Your task to perform on an android device: add a label to a message in the gmail app Image 0: 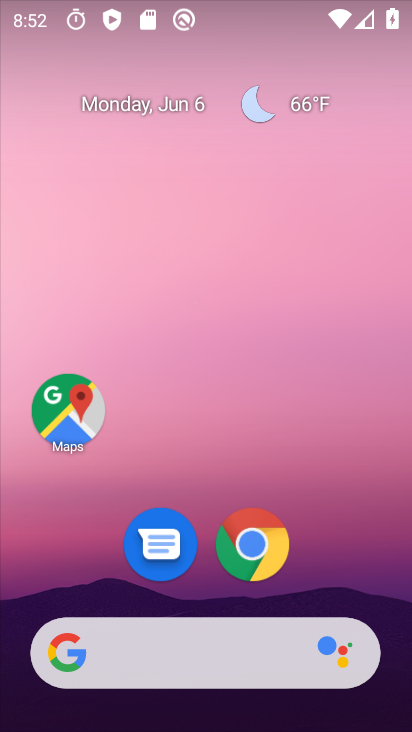
Step 0: drag from (390, 558) to (318, 73)
Your task to perform on an android device: add a label to a message in the gmail app Image 1: 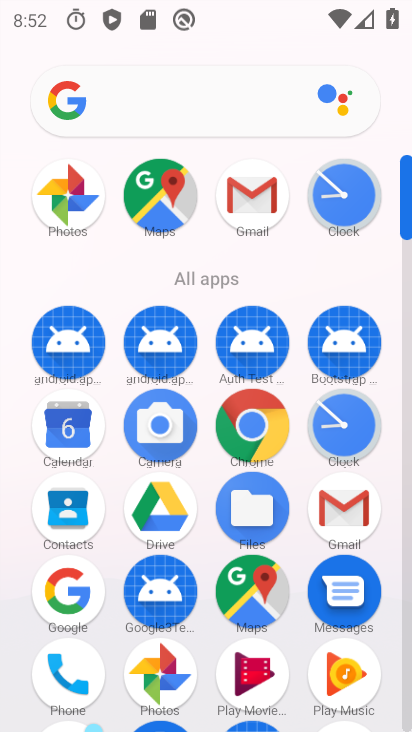
Step 1: click (249, 190)
Your task to perform on an android device: add a label to a message in the gmail app Image 2: 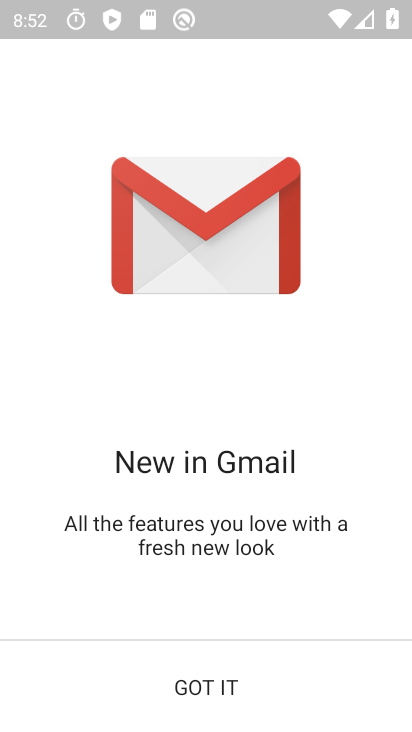
Step 2: click (215, 692)
Your task to perform on an android device: add a label to a message in the gmail app Image 3: 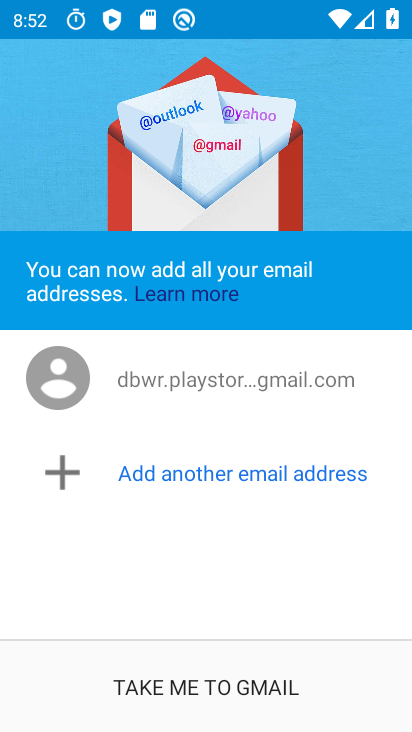
Step 3: click (215, 692)
Your task to perform on an android device: add a label to a message in the gmail app Image 4: 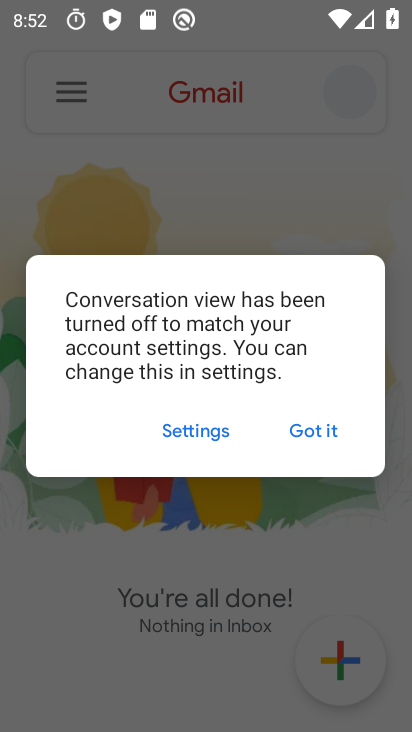
Step 4: click (295, 430)
Your task to perform on an android device: add a label to a message in the gmail app Image 5: 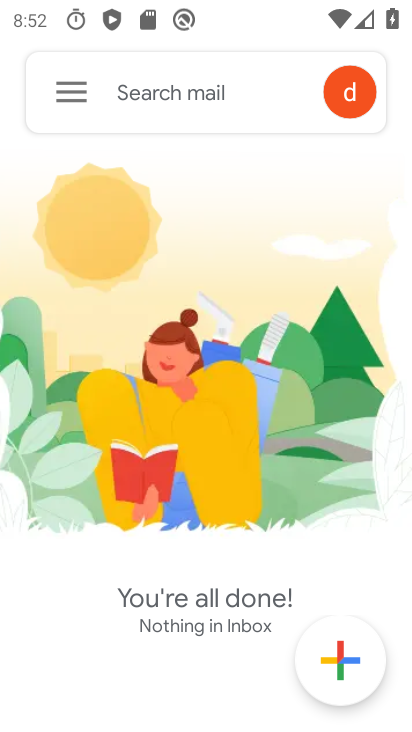
Step 5: task complete